Your task to perform on an android device: turn on priority inbox in the gmail app Image 0: 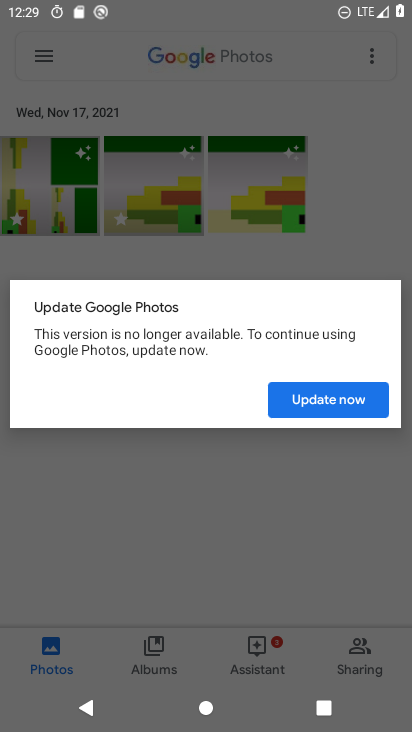
Step 0: press home button
Your task to perform on an android device: turn on priority inbox in the gmail app Image 1: 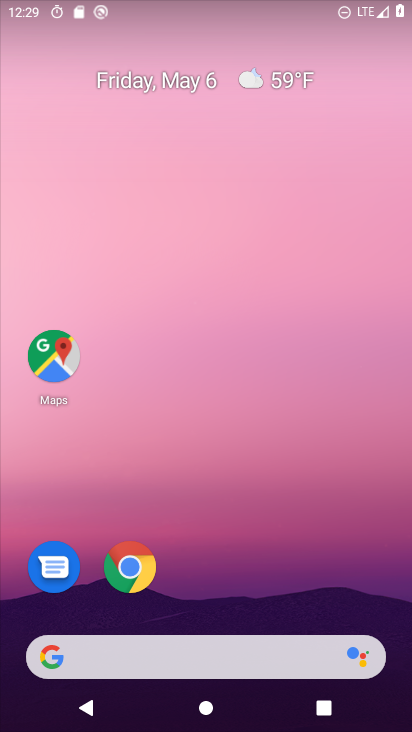
Step 1: drag from (329, 607) to (362, 5)
Your task to perform on an android device: turn on priority inbox in the gmail app Image 2: 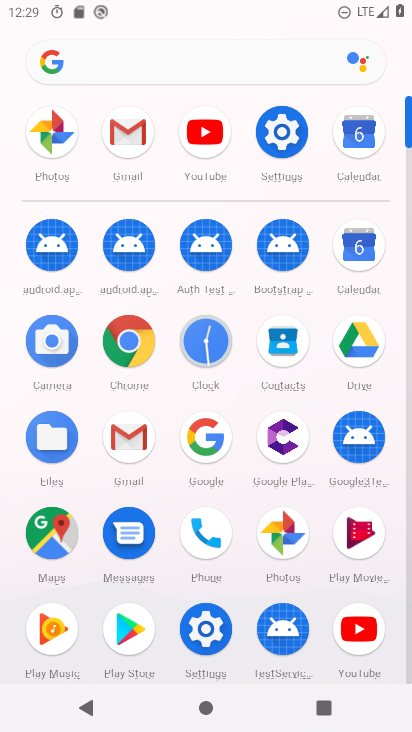
Step 2: click (130, 137)
Your task to perform on an android device: turn on priority inbox in the gmail app Image 3: 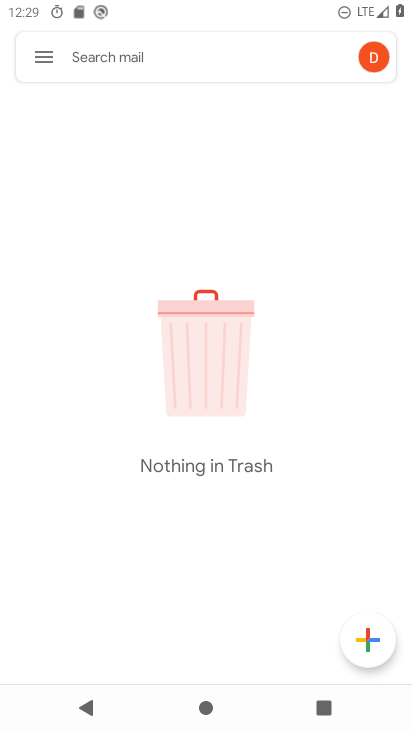
Step 3: click (53, 61)
Your task to perform on an android device: turn on priority inbox in the gmail app Image 4: 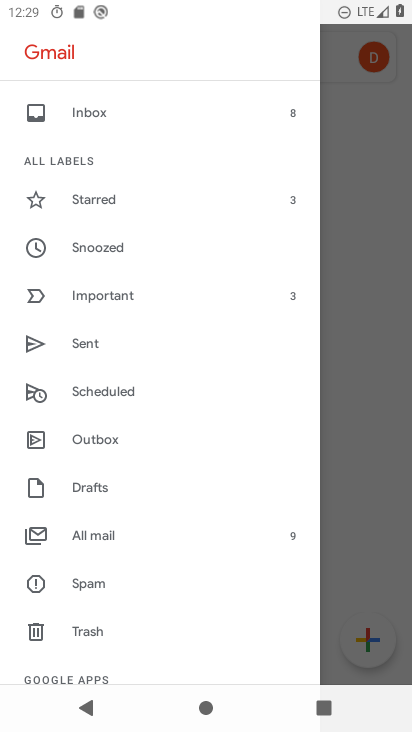
Step 4: drag from (159, 550) to (164, 150)
Your task to perform on an android device: turn on priority inbox in the gmail app Image 5: 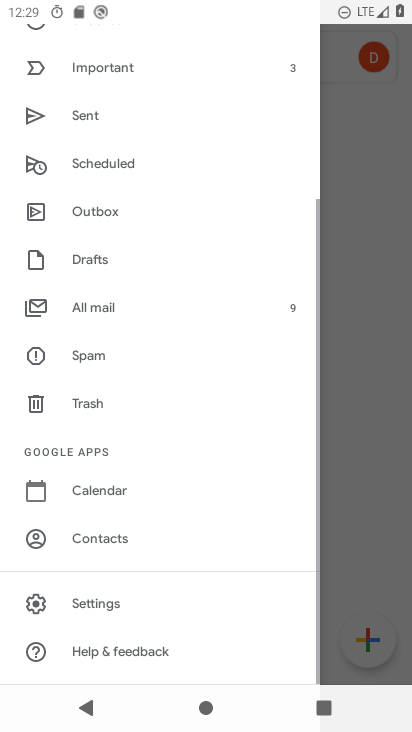
Step 5: click (77, 600)
Your task to perform on an android device: turn on priority inbox in the gmail app Image 6: 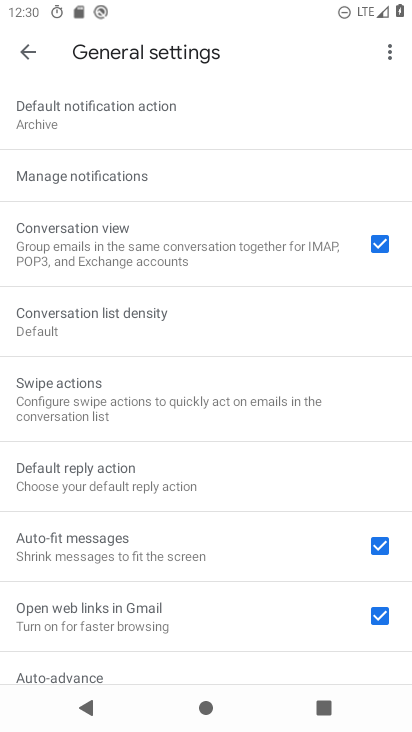
Step 6: click (26, 52)
Your task to perform on an android device: turn on priority inbox in the gmail app Image 7: 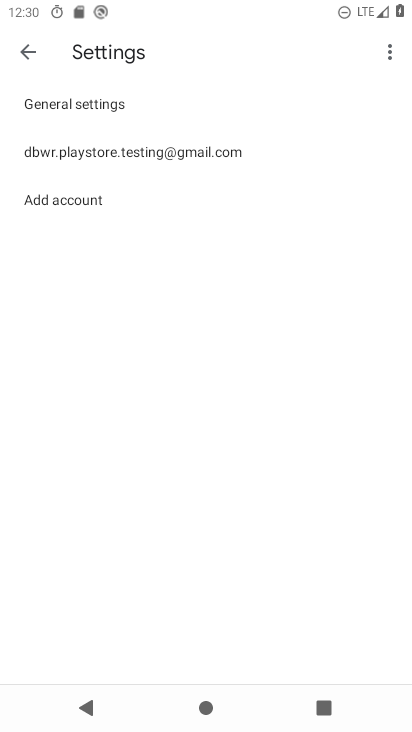
Step 7: click (68, 152)
Your task to perform on an android device: turn on priority inbox in the gmail app Image 8: 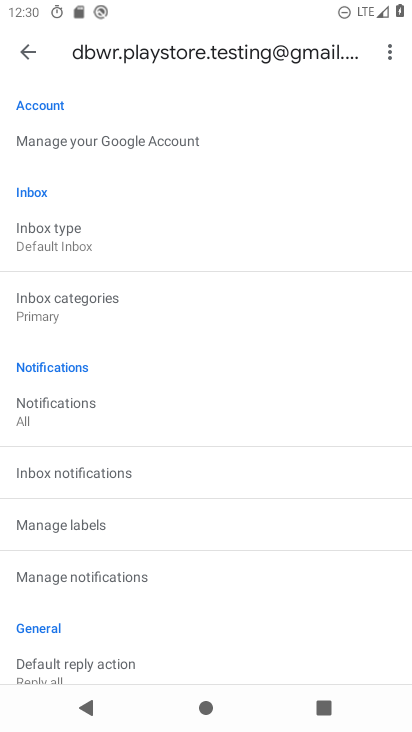
Step 8: click (61, 238)
Your task to perform on an android device: turn on priority inbox in the gmail app Image 9: 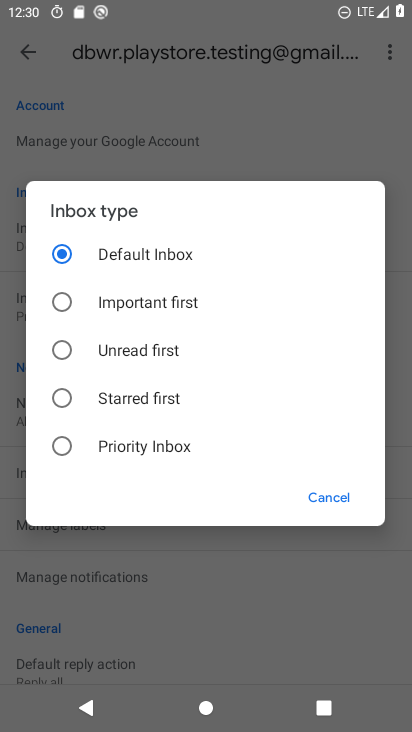
Step 9: click (62, 438)
Your task to perform on an android device: turn on priority inbox in the gmail app Image 10: 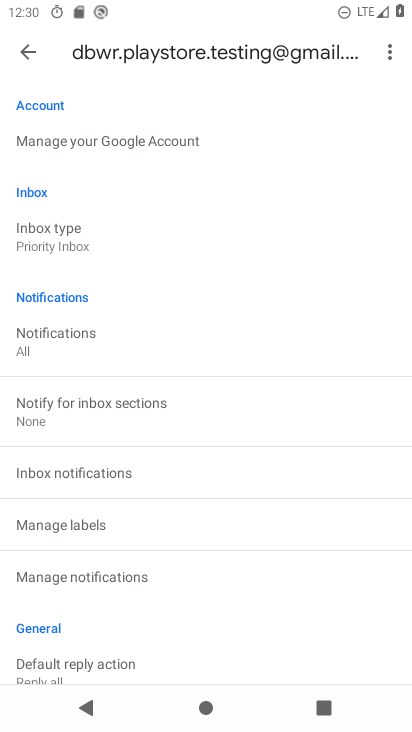
Step 10: task complete